Your task to perform on an android device: Open Chrome and go to the settings page Image 0: 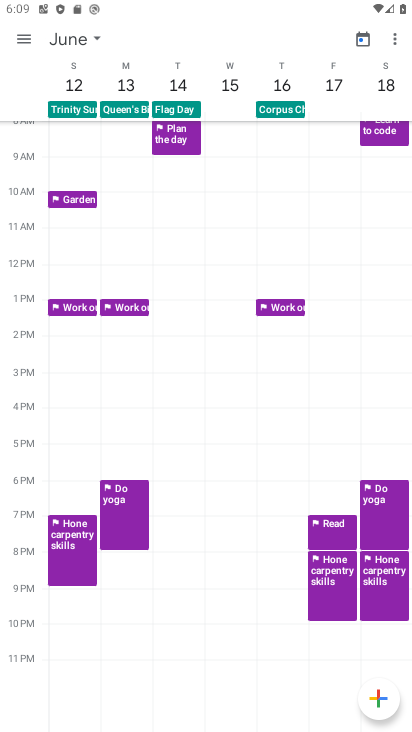
Step 0: press home button
Your task to perform on an android device: Open Chrome and go to the settings page Image 1: 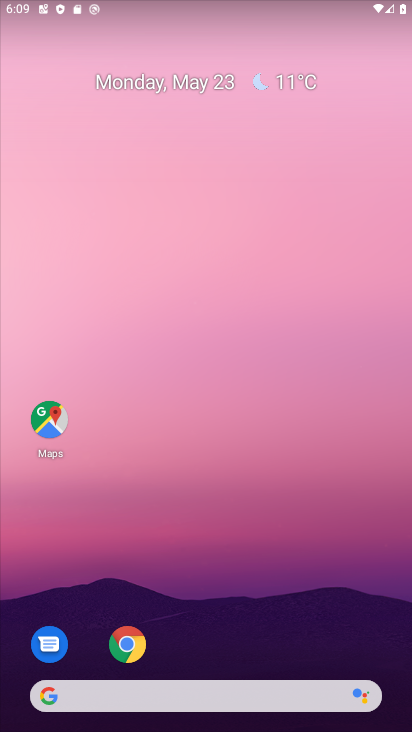
Step 1: click (126, 647)
Your task to perform on an android device: Open Chrome and go to the settings page Image 2: 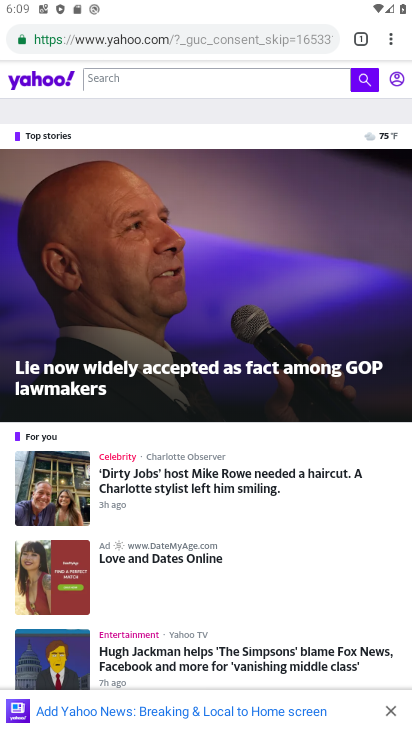
Step 2: click (395, 41)
Your task to perform on an android device: Open Chrome and go to the settings page Image 3: 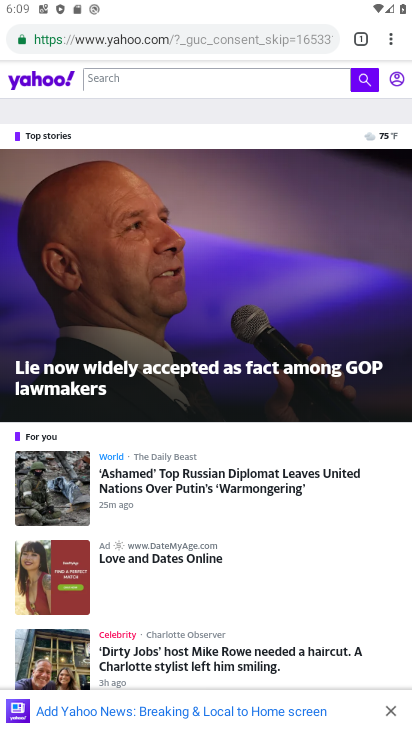
Step 3: click (390, 38)
Your task to perform on an android device: Open Chrome and go to the settings page Image 4: 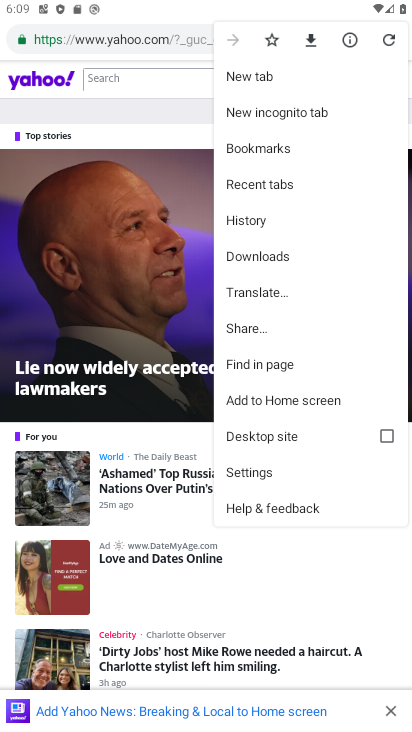
Step 4: click (249, 479)
Your task to perform on an android device: Open Chrome and go to the settings page Image 5: 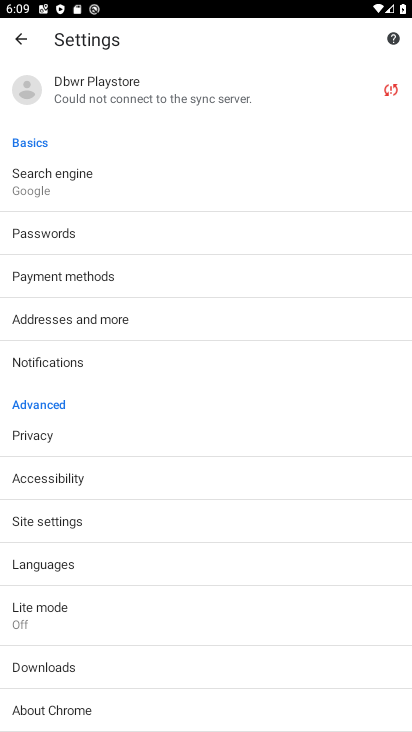
Step 5: click (260, 477)
Your task to perform on an android device: Open Chrome and go to the settings page Image 6: 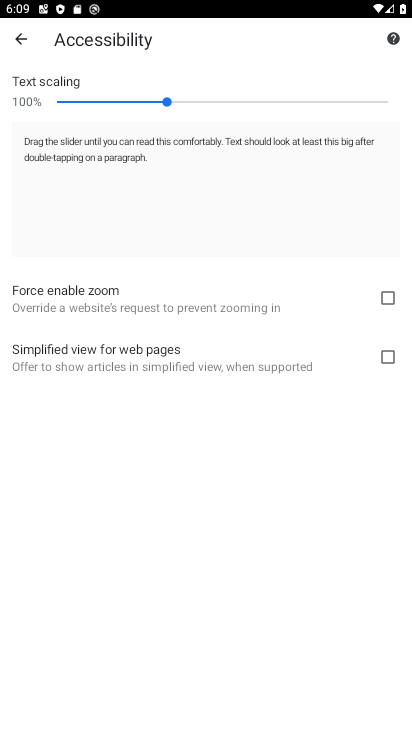
Step 6: task complete